Your task to perform on an android device: Go to privacy settings Image 0: 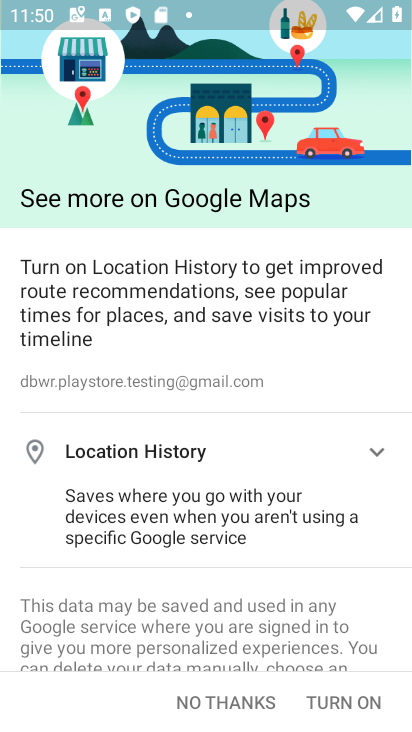
Step 0: press home button
Your task to perform on an android device: Go to privacy settings Image 1: 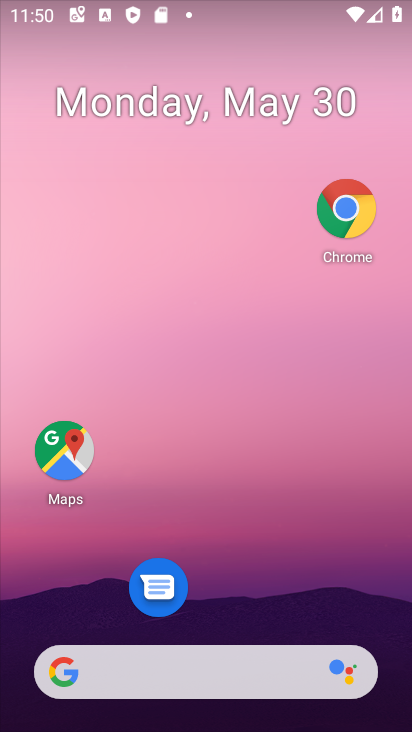
Step 1: drag from (197, 629) to (182, 52)
Your task to perform on an android device: Go to privacy settings Image 2: 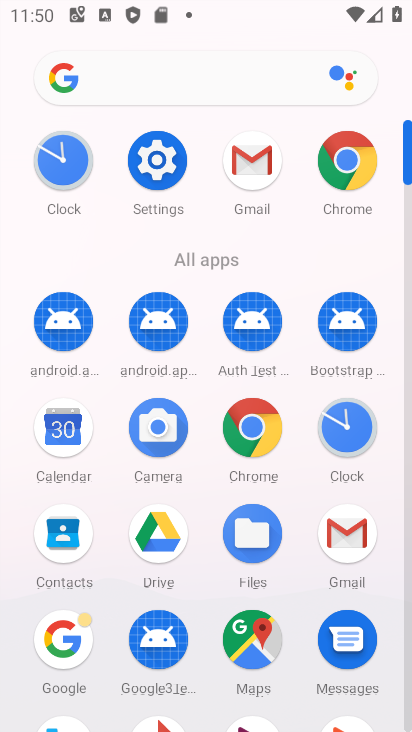
Step 2: click (177, 170)
Your task to perform on an android device: Go to privacy settings Image 3: 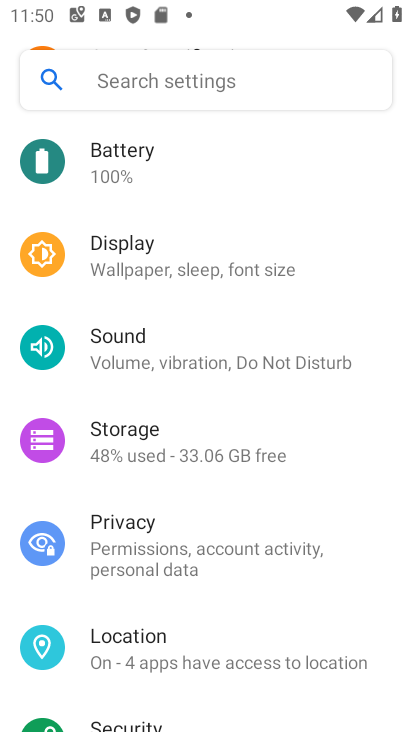
Step 3: click (154, 543)
Your task to perform on an android device: Go to privacy settings Image 4: 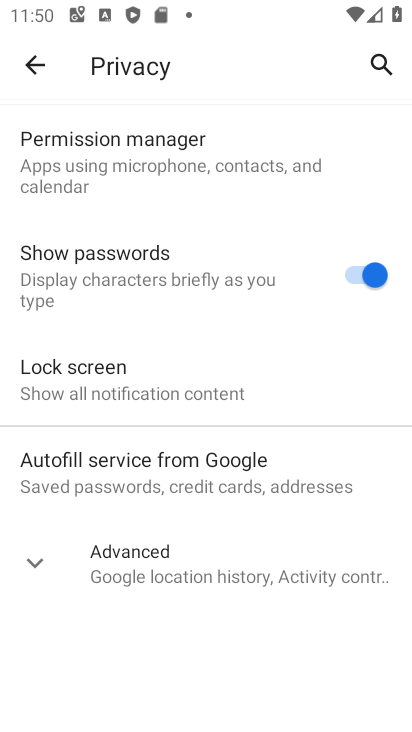
Step 4: task complete